Your task to perform on an android device: Open accessibility settings Image 0: 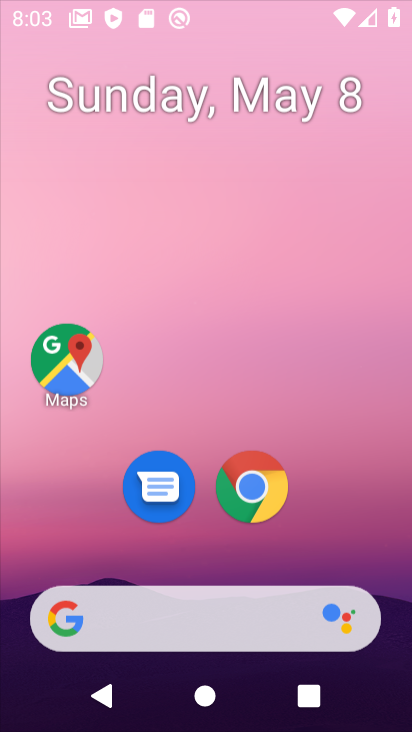
Step 0: click (371, 310)
Your task to perform on an android device: Open accessibility settings Image 1: 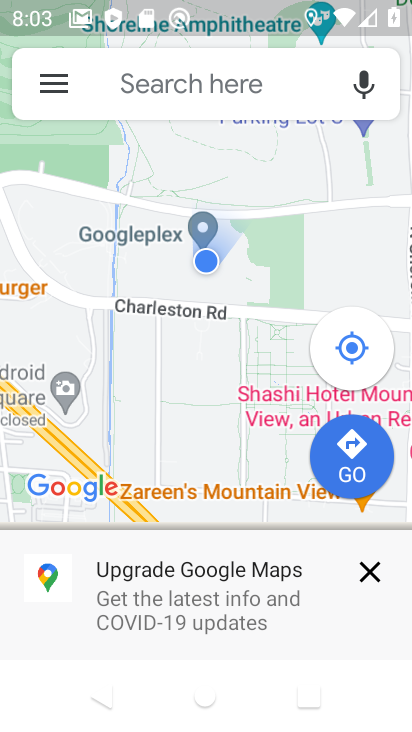
Step 1: press home button
Your task to perform on an android device: Open accessibility settings Image 2: 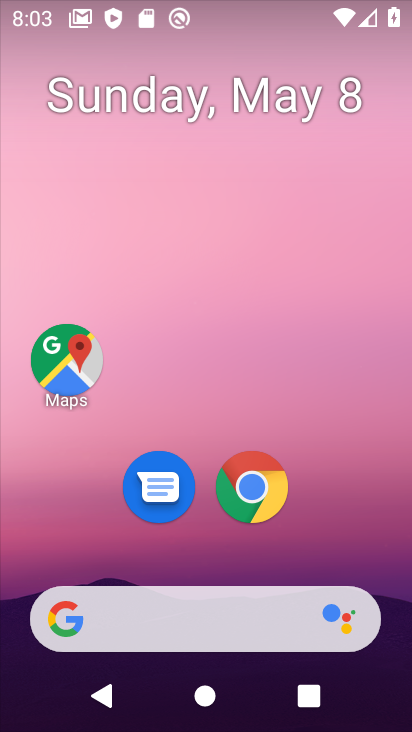
Step 2: press home button
Your task to perform on an android device: Open accessibility settings Image 3: 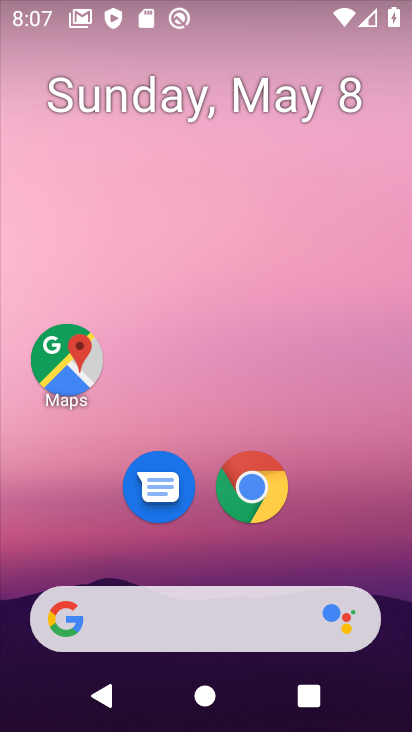
Step 3: drag from (311, 538) to (342, 61)
Your task to perform on an android device: Open accessibility settings Image 4: 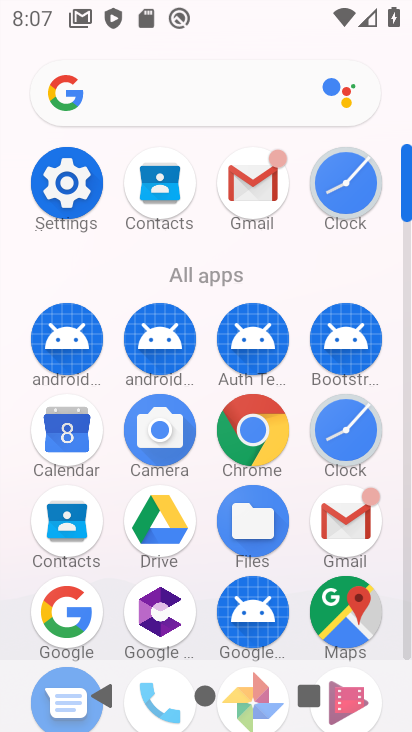
Step 4: click (73, 194)
Your task to perform on an android device: Open accessibility settings Image 5: 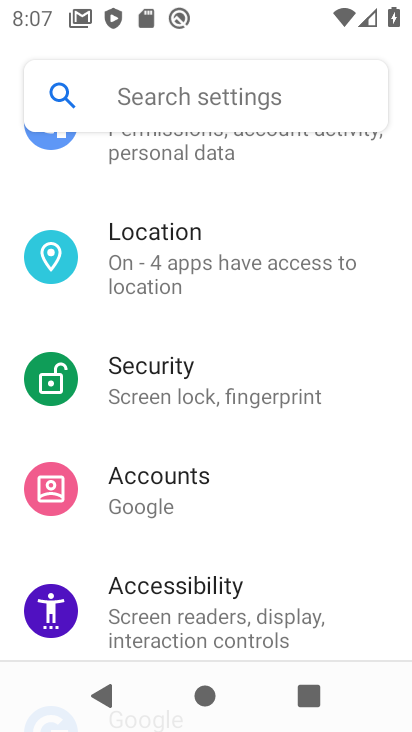
Step 5: click (201, 615)
Your task to perform on an android device: Open accessibility settings Image 6: 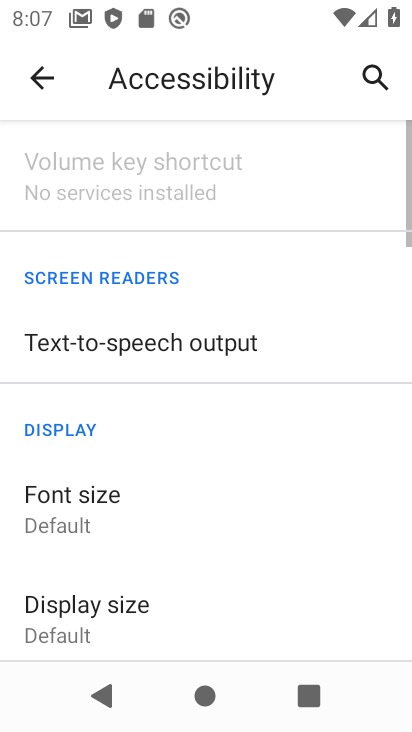
Step 6: task complete